Your task to perform on an android device: What's the weather going to be this weekend? Image 0: 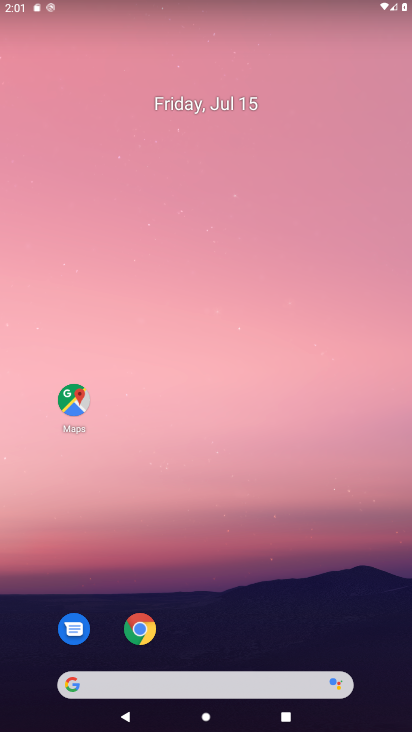
Step 0: drag from (341, 627) to (225, 76)
Your task to perform on an android device: What's the weather going to be this weekend? Image 1: 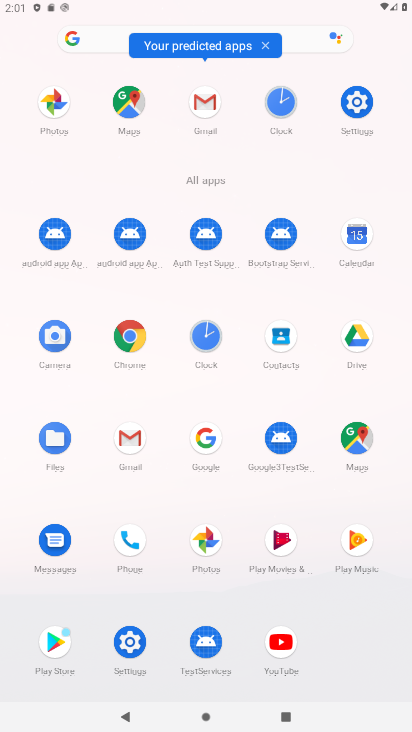
Step 1: click (135, 342)
Your task to perform on an android device: What's the weather going to be this weekend? Image 2: 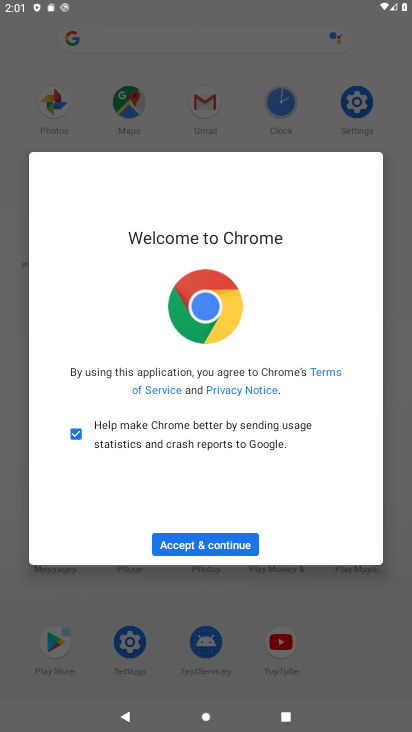
Step 2: click (214, 539)
Your task to perform on an android device: What's the weather going to be this weekend? Image 3: 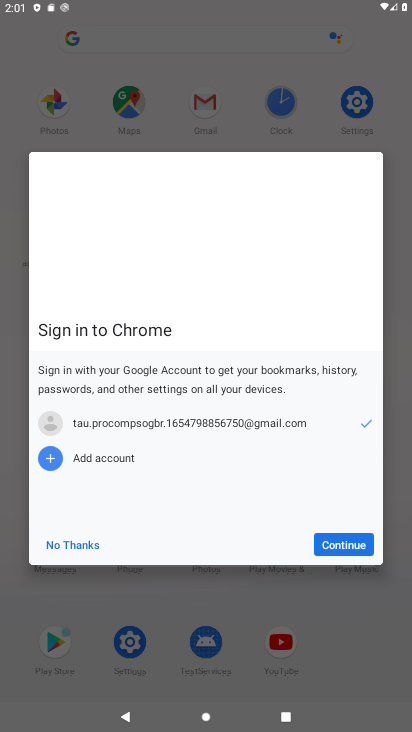
Step 3: click (321, 542)
Your task to perform on an android device: What's the weather going to be this weekend? Image 4: 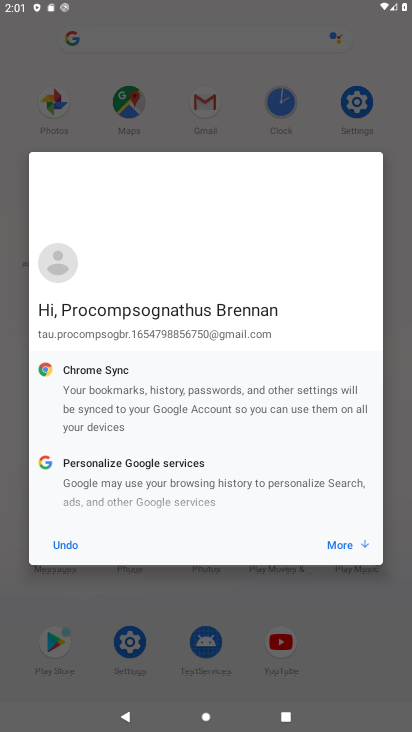
Step 4: click (336, 542)
Your task to perform on an android device: What's the weather going to be this weekend? Image 5: 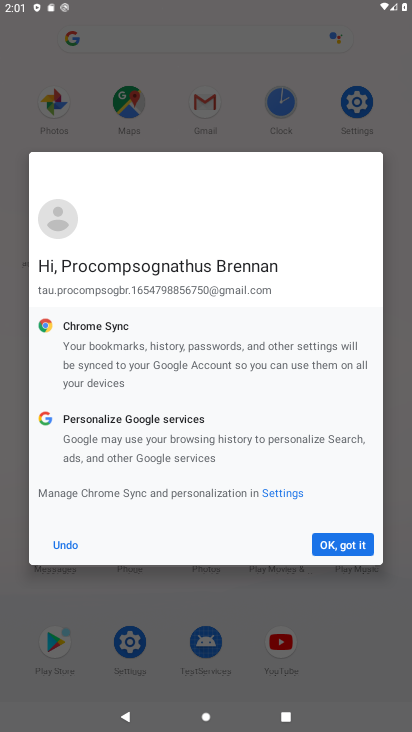
Step 5: click (338, 544)
Your task to perform on an android device: What's the weather going to be this weekend? Image 6: 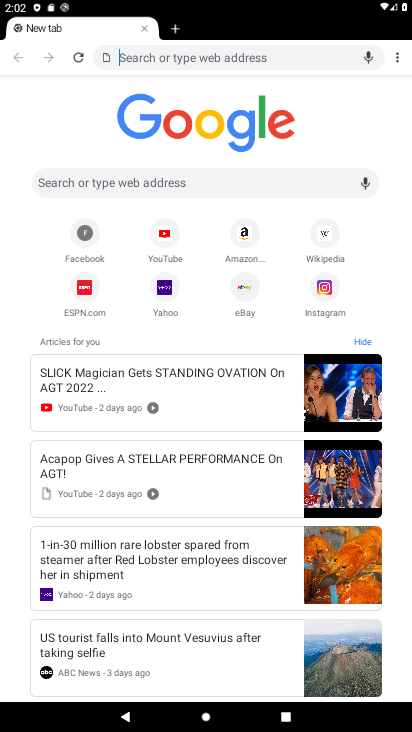
Step 6: click (332, 49)
Your task to perform on an android device: What's the weather going to be this weekend? Image 7: 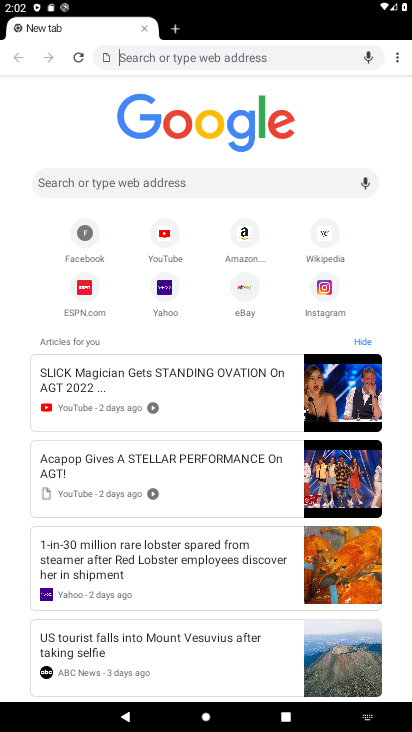
Step 7: type "What's the weather going to be this weekend?"
Your task to perform on an android device: What's the weather going to be this weekend? Image 8: 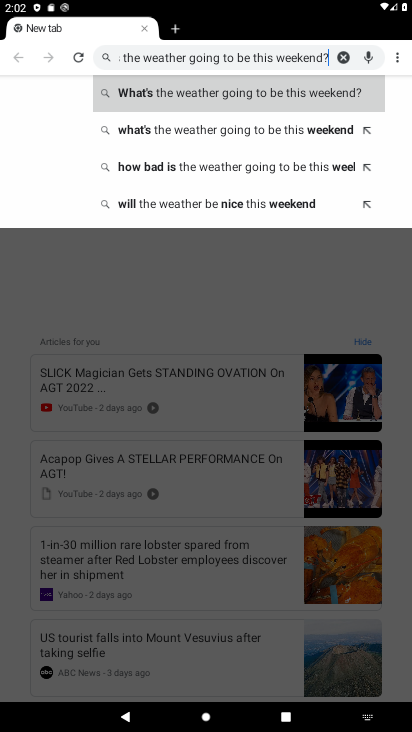
Step 8: click (276, 92)
Your task to perform on an android device: What's the weather going to be this weekend? Image 9: 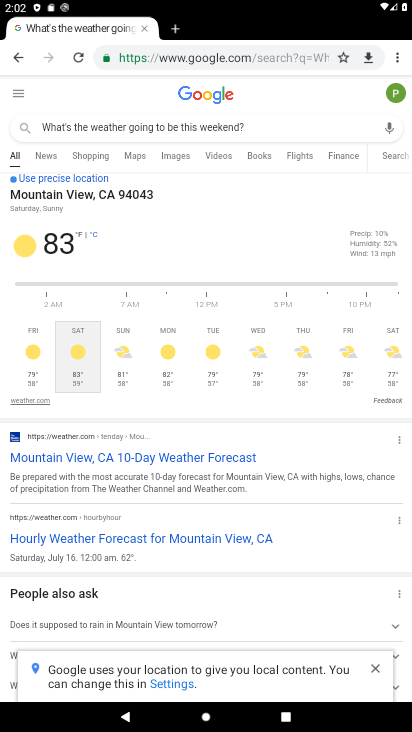
Step 9: task complete